Your task to perform on an android device: check out phone information Image 0: 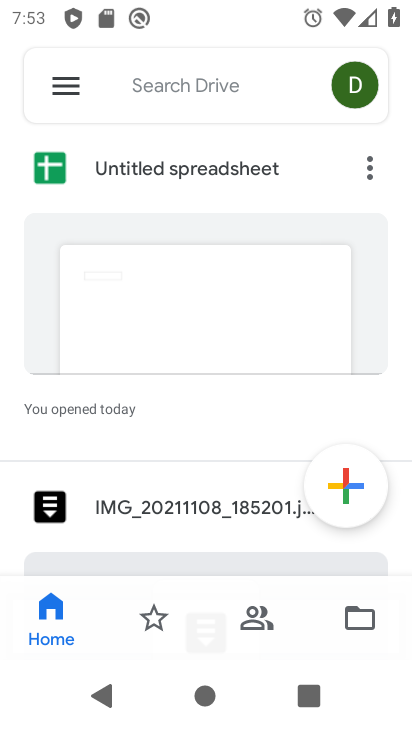
Step 0: press back button
Your task to perform on an android device: check out phone information Image 1: 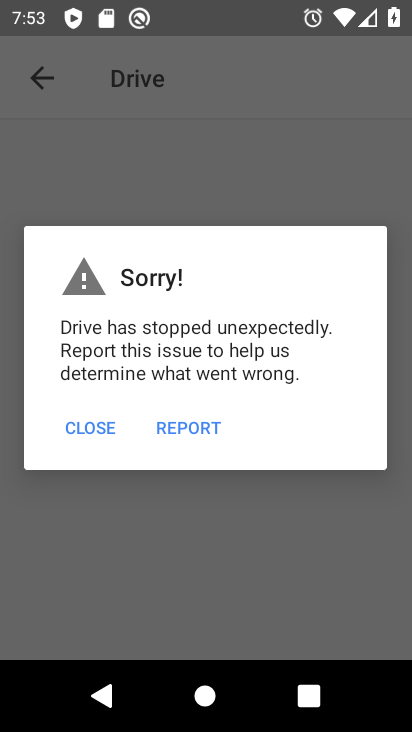
Step 1: press home button
Your task to perform on an android device: check out phone information Image 2: 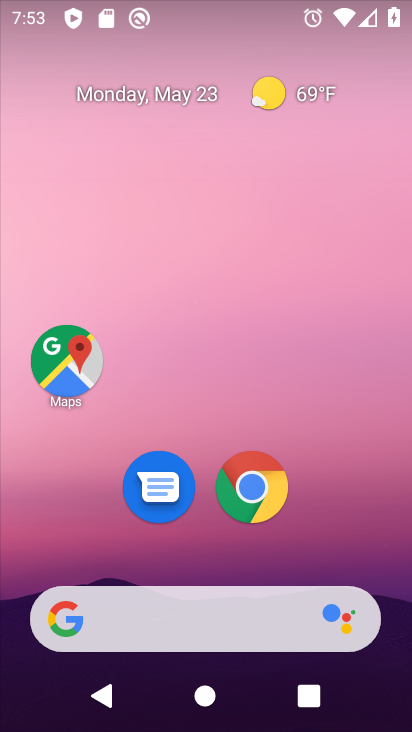
Step 2: drag from (356, 549) to (263, 23)
Your task to perform on an android device: check out phone information Image 3: 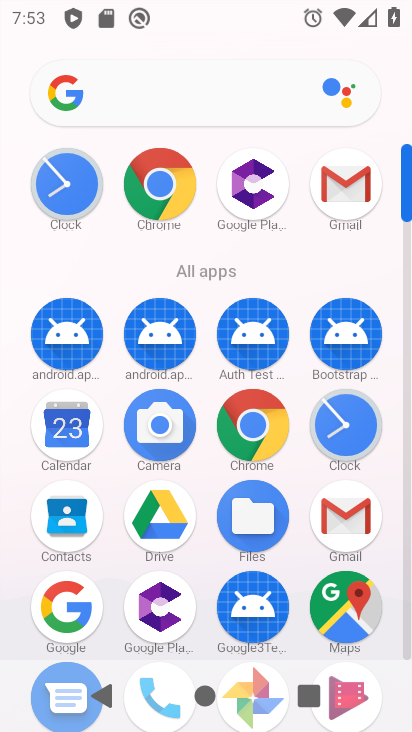
Step 3: drag from (11, 618) to (25, 250)
Your task to perform on an android device: check out phone information Image 4: 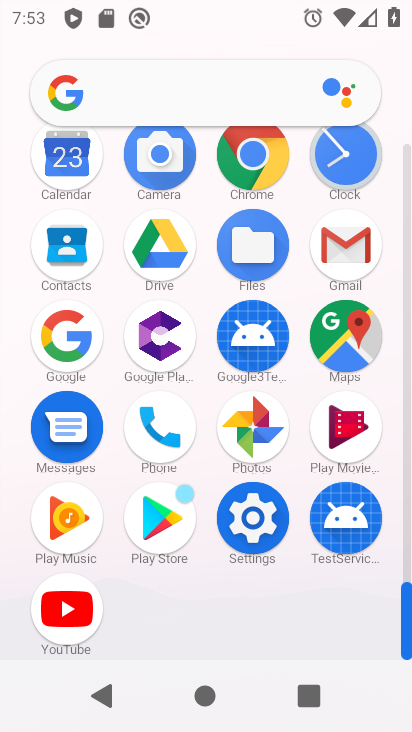
Step 4: click (252, 515)
Your task to perform on an android device: check out phone information Image 5: 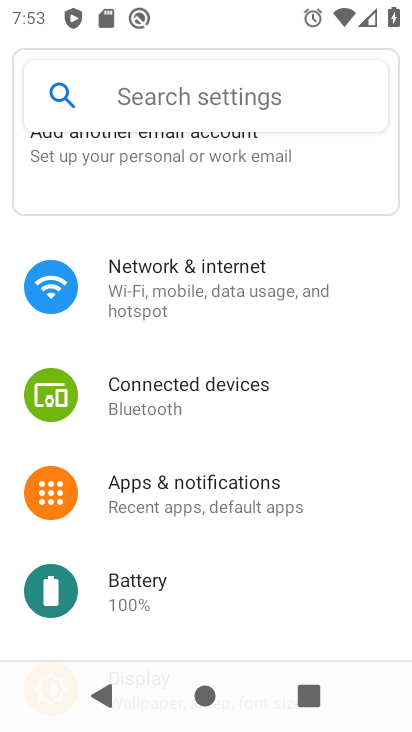
Step 5: drag from (237, 580) to (237, 163)
Your task to perform on an android device: check out phone information Image 6: 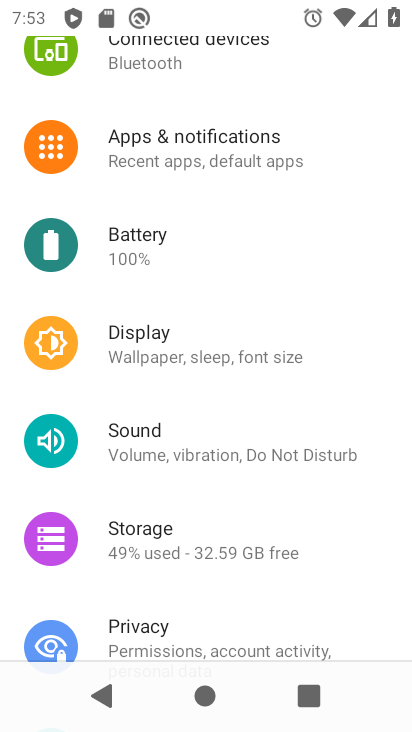
Step 6: drag from (256, 557) to (302, 72)
Your task to perform on an android device: check out phone information Image 7: 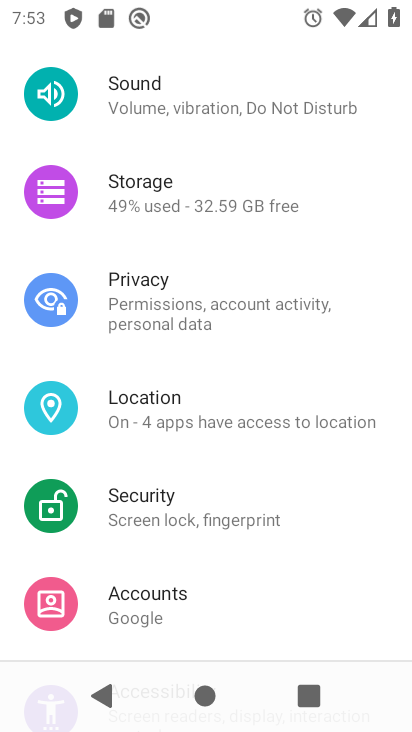
Step 7: drag from (228, 578) to (249, 73)
Your task to perform on an android device: check out phone information Image 8: 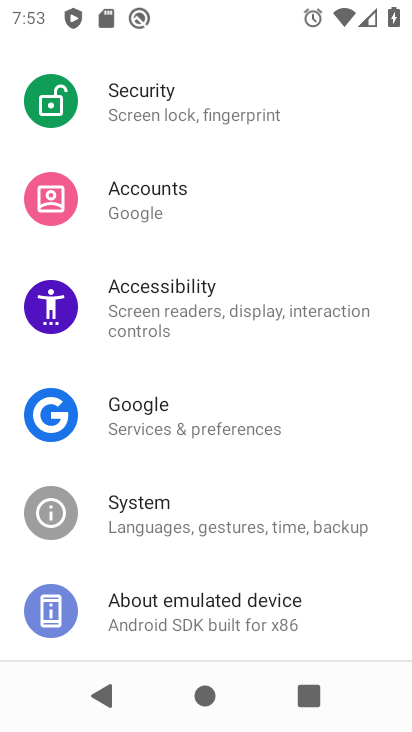
Step 8: click (200, 626)
Your task to perform on an android device: check out phone information Image 9: 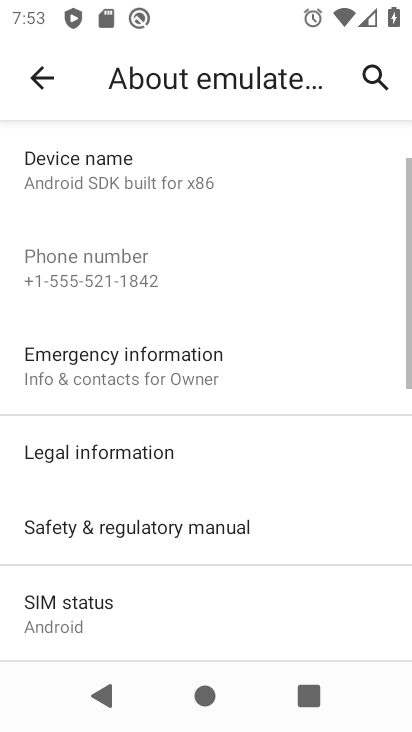
Step 9: task complete